Your task to perform on an android device: turn off location history Image 0: 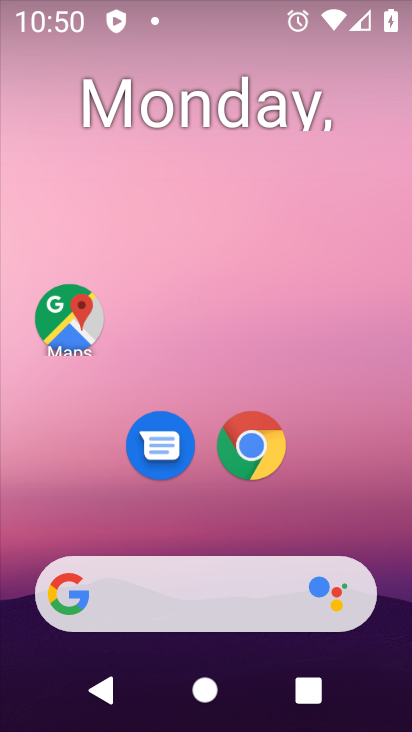
Step 0: drag from (329, 519) to (237, 14)
Your task to perform on an android device: turn off location history Image 1: 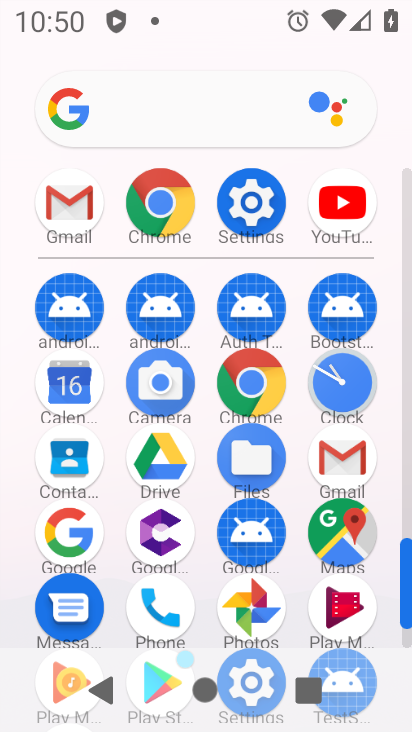
Step 1: click (246, 195)
Your task to perform on an android device: turn off location history Image 2: 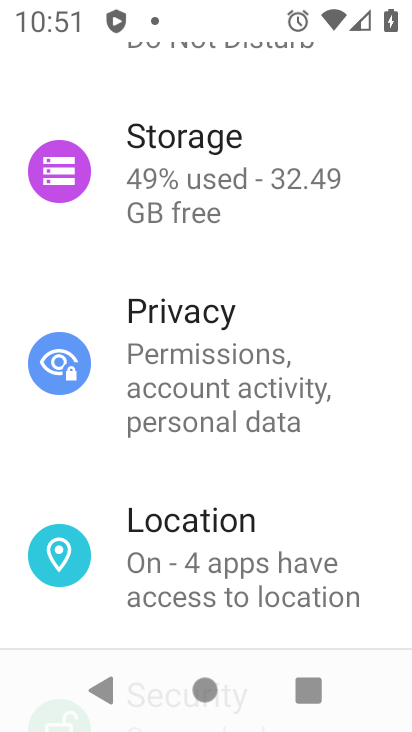
Step 2: click (215, 555)
Your task to perform on an android device: turn off location history Image 3: 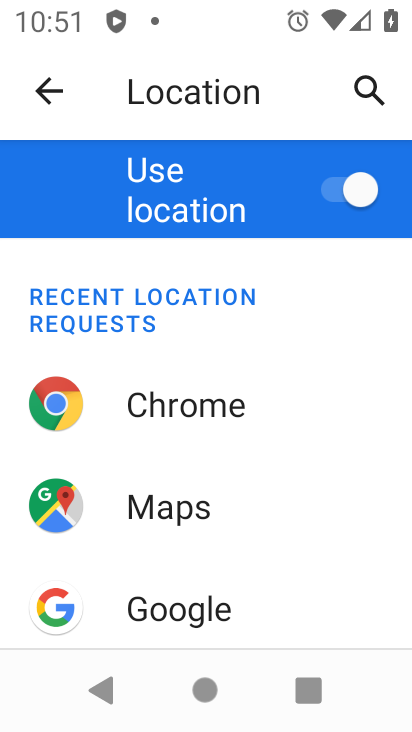
Step 3: drag from (147, 607) to (136, 243)
Your task to perform on an android device: turn off location history Image 4: 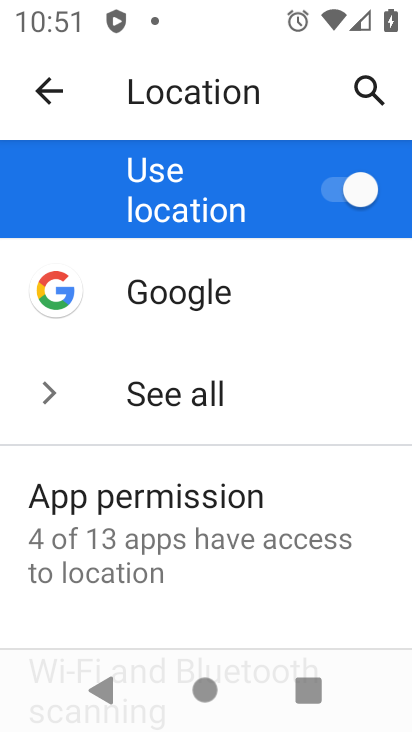
Step 4: drag from (145, 581) to (160, 320)
Your task to perform on an android device: turn off location history Image 5: 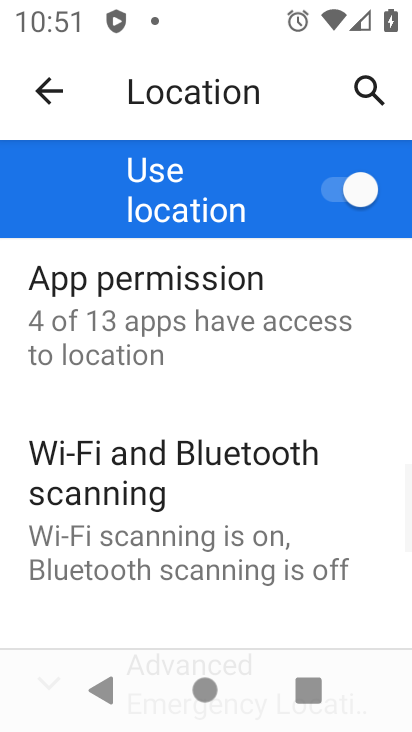
Step 5: drag from (186, 620) to (170, 342)
Your task to perform on an android device: turn off location history Image 6: 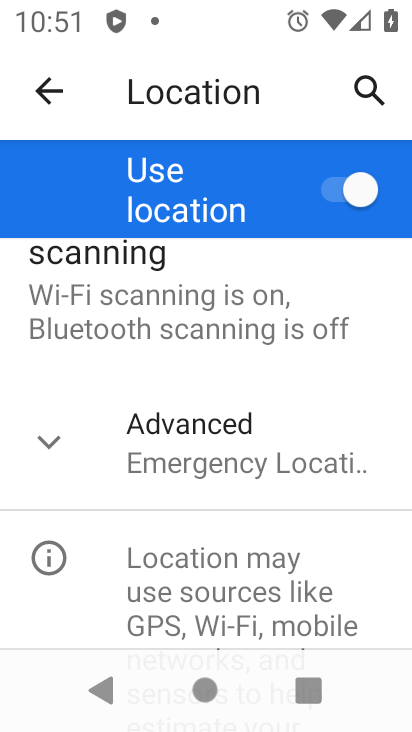
Step 6: click (192, 464)
Your task to perform on an android device: turn off location history Image 7: 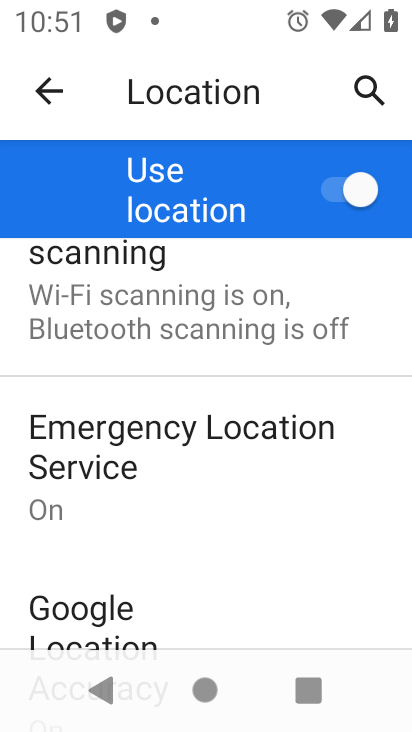
Step 7: drag from (173, 633) to (204, 243)
Your task to perform on an android device: turn off location history Image 8: 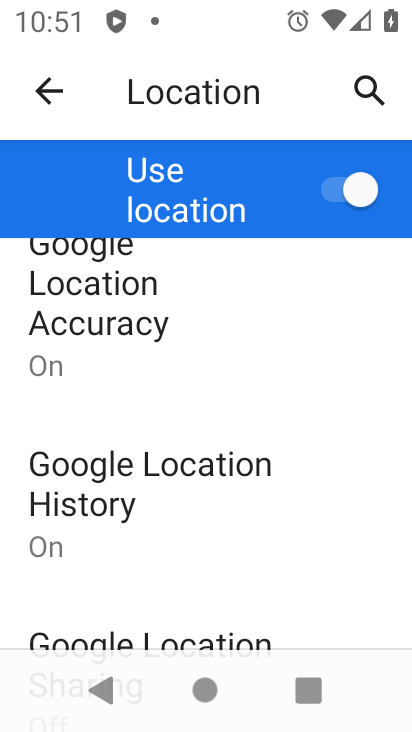
Step 8: drag from (152, 605) to (164, 473)
Your task to perform on an android device: turn off location history Image 9: 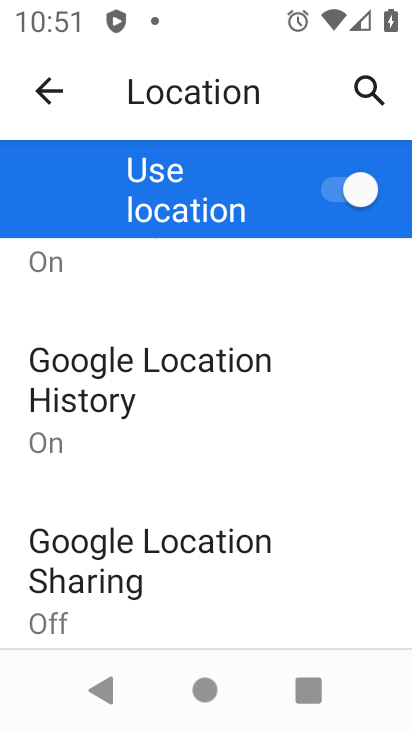
Step 9: click (72, 401)
Your task to perform on an android device: turn off location history Image 10: 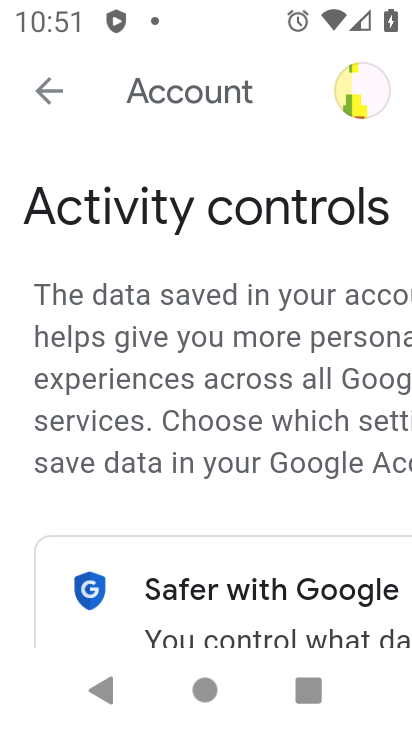
Step 10: task complete